Your task to perform on an android device: Open sound settings Image 0: 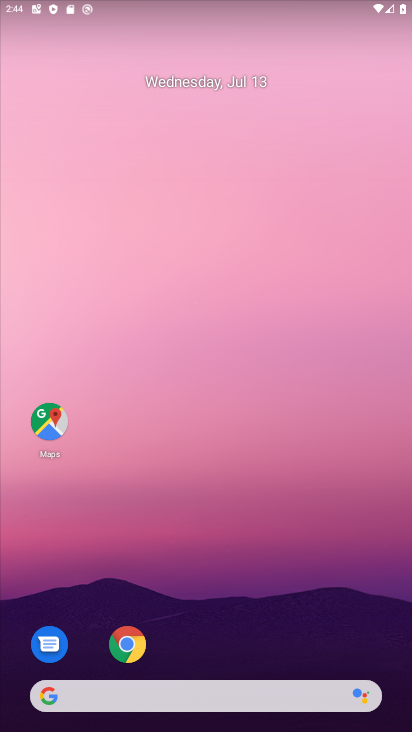
Step 0: drag from (296, 579) to (248, 118)
Your task to perform on an android device: Open sound settings Image 1: 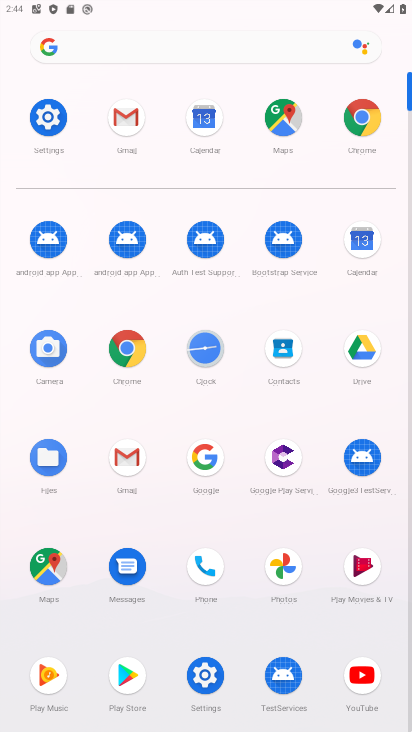
Step 1: click (49, 123)
Your task to perform on an android device: Open sound settings Image 2: 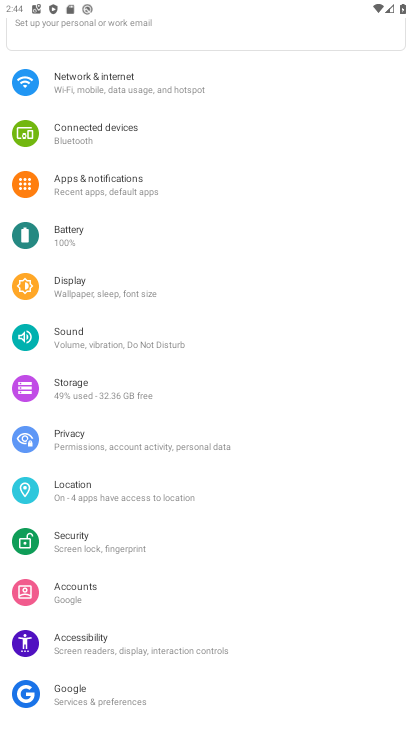
Step 2: click (111, 345)
Your task to perform on an android device: Open sound settings Image 3: 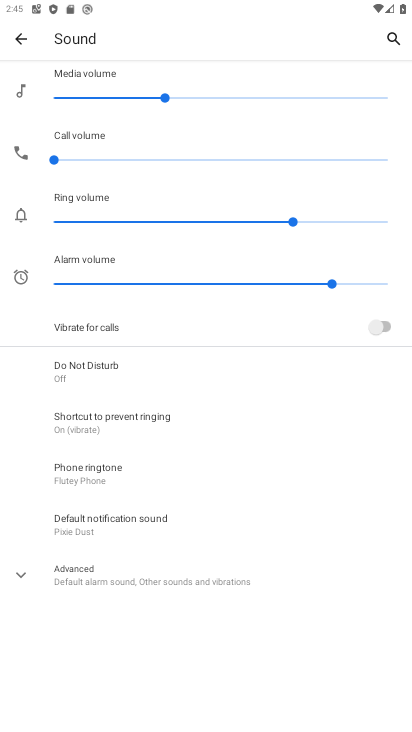
Step 3: task complete